Your task to perform on an android device: change alarm snooze length Image 0: 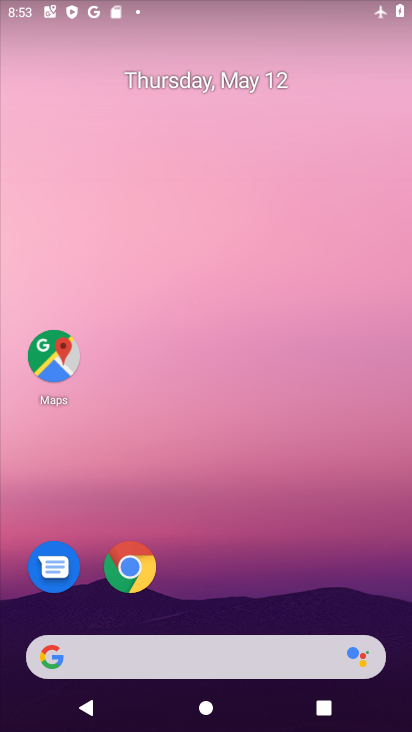
Step 0: drag from (245, 579) to (306, 183)
Your task to perform on an android device: change alarm snooze length Image 1: 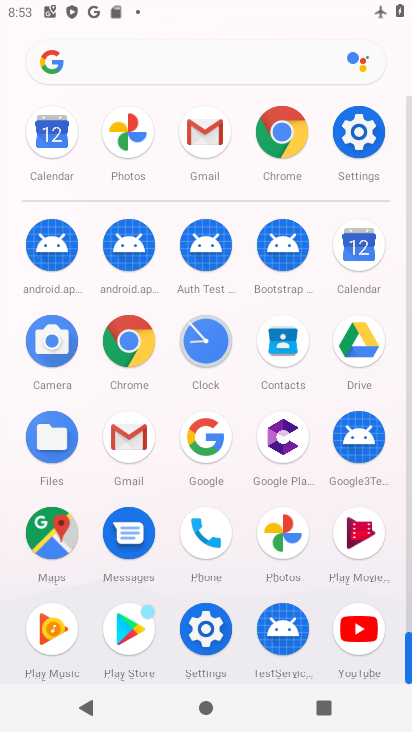
Step 1: click (206, 347)
Your task to perform on an android device: change alarm snooze length Image 2: 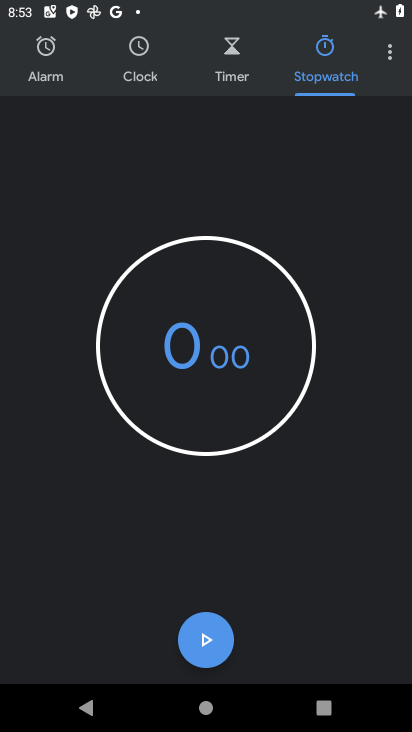
Step 2: click (389, 70)
Your task to perform on an android device: change alarm snooze length Image 3: 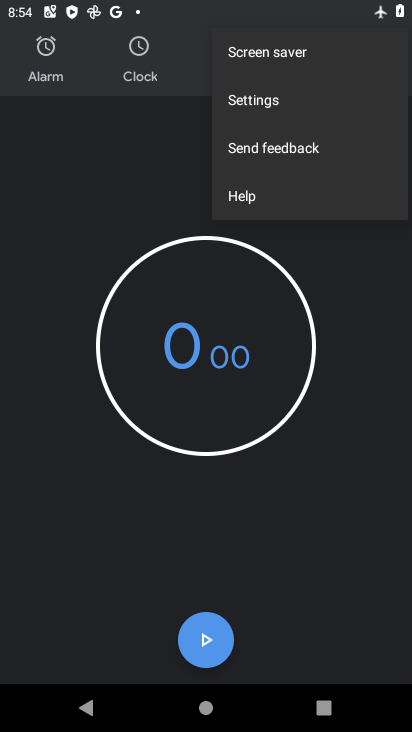
Step 3: click (269, 105)
Your task to perform on an android device: change alarm snooze length Image 4: 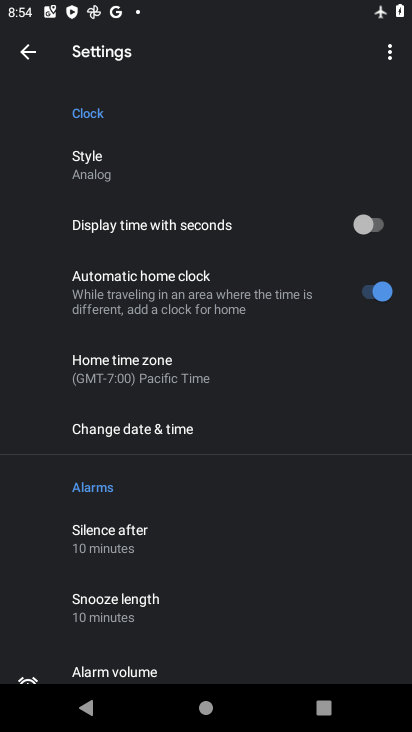
Step 4: drag from (171, 504) to (197, 370)
Your task to perform on an android device: change alarm snooze length Image 5: 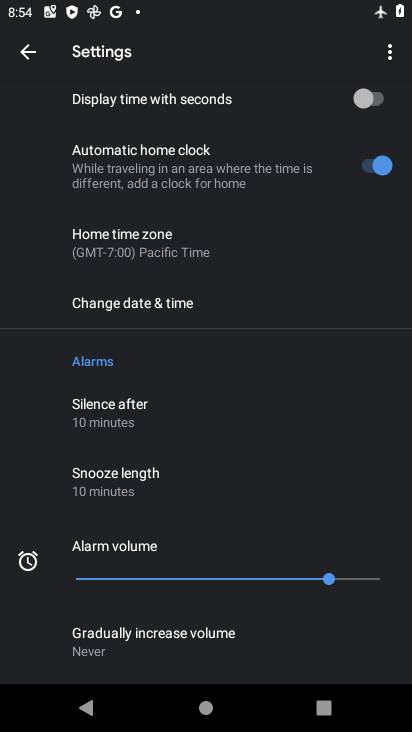
Step 5: click (165, 478)
Your task to perform on an android device: change alarm snooze length Image 6: 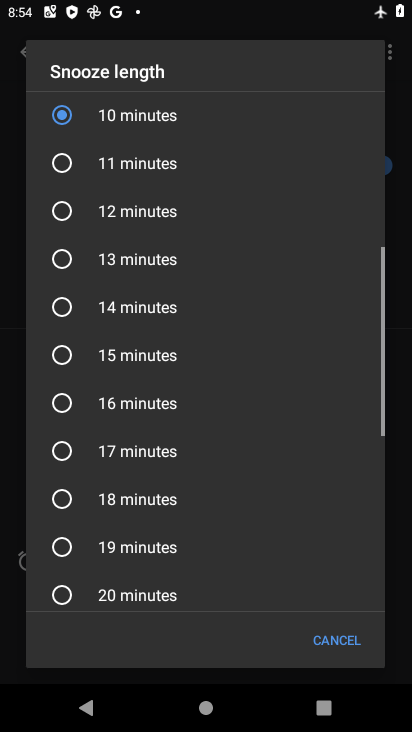
Step 6: click (126, 215)
Your task to perform on an android device: change alarm snooze length Image 7: 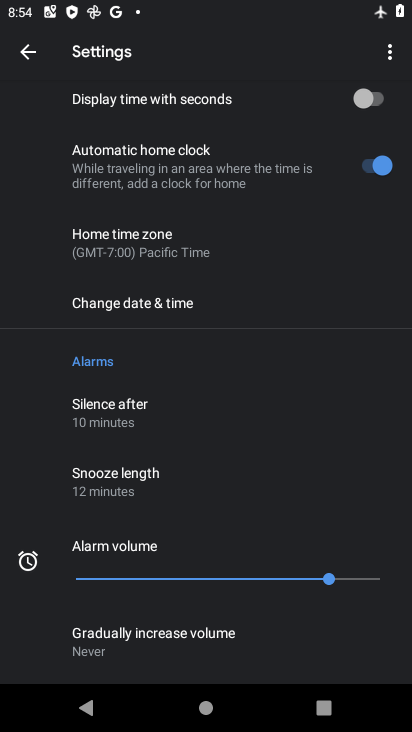
Step 7: task complete